Your task to perform on an android device: toggle wifi Image 0: 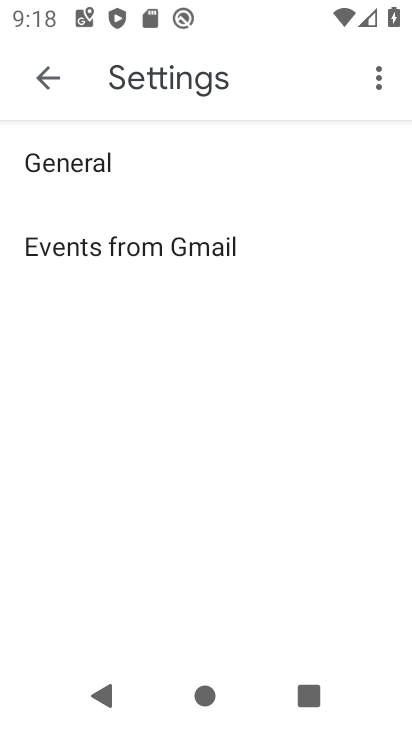
Step 0: press home button
Your task to perform on an android device: toggle wifi Image 1: 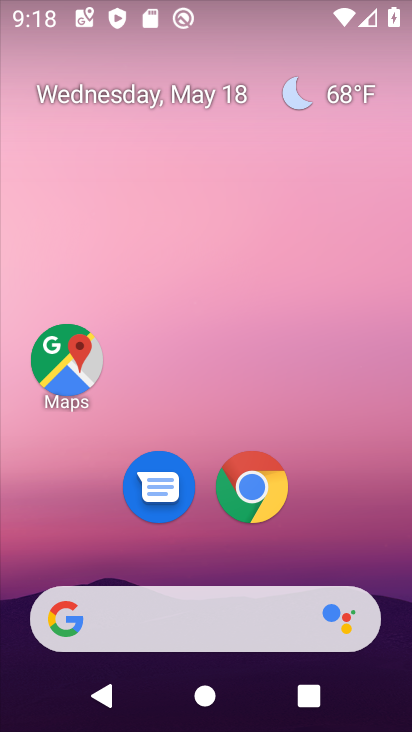
Step 1: drag from (382, 548) to (332, 177)
Your task to perform on an android device: toggle wifi Image 2: 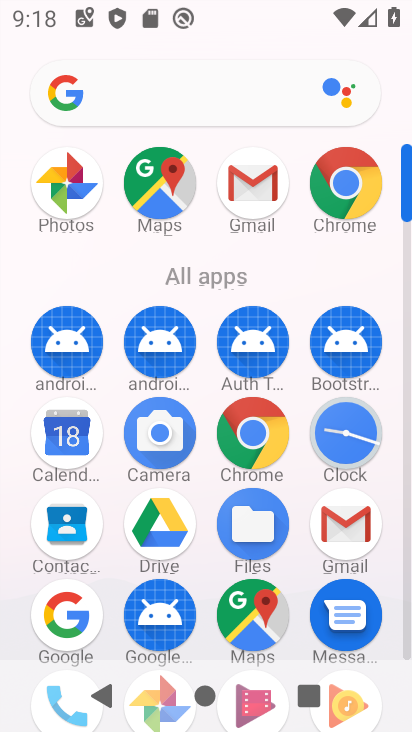
Step 2: drag from (290, 567) to (306, 229)
Your task to perform on an android device: toggle wifi Image 3: 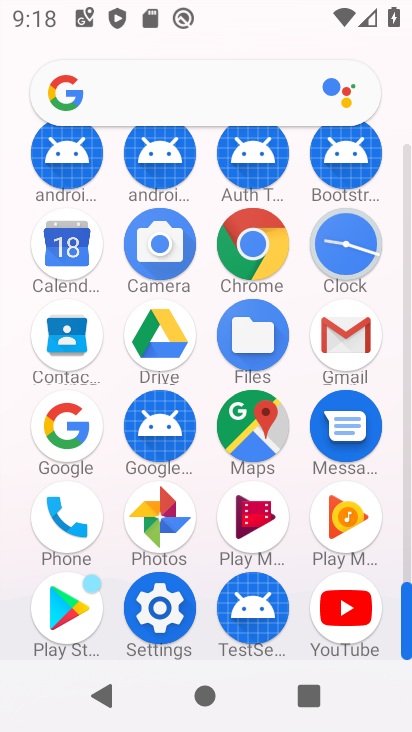
Step 3: click (170, 628)
Your task to perform on an android device: toggle wifi Image 4: 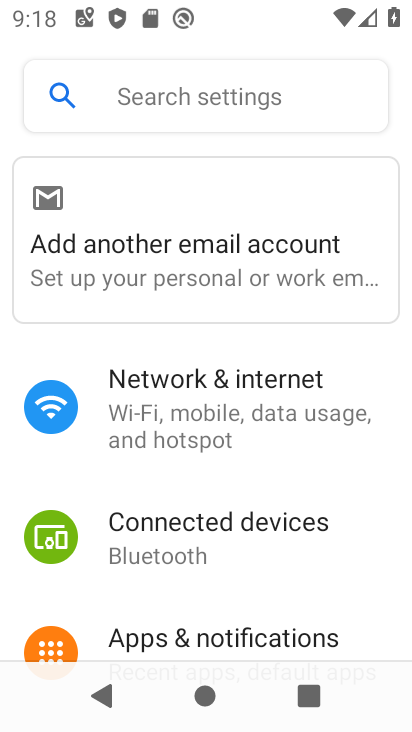
Step 4: click (159, 404)
Your task to perform on an android device: toggle wifi Image 5: 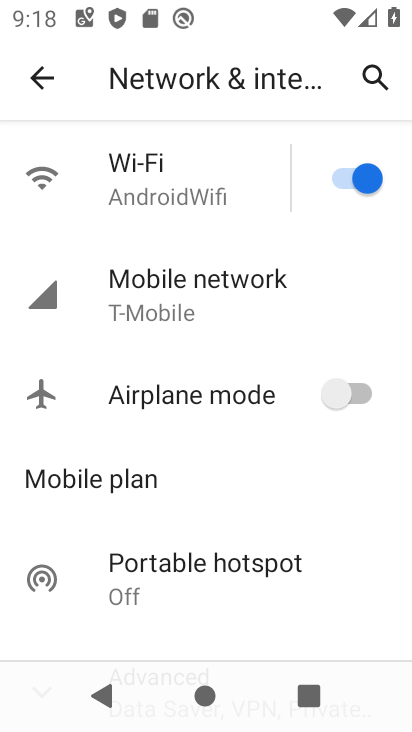
Step 5: task complete